Your task to perform on an android device: turn pop-ups on in chrome Image 0: 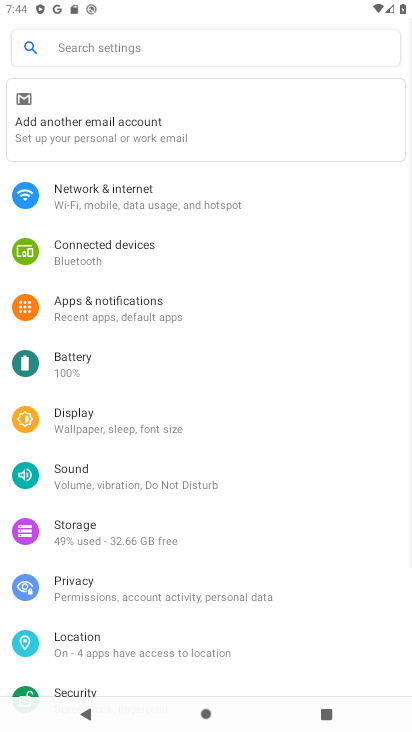
Step 0: press home button
Your task to perform on an android device: turn pop-ups on in chrome Image 1: 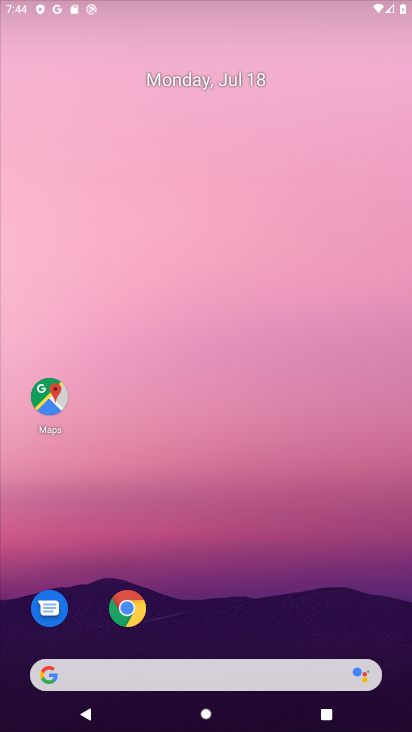
Step 1: drag from (223, 642) to (256, 213)
Your task to perform on an android device: turn pop-ups on in chrome Image 2: 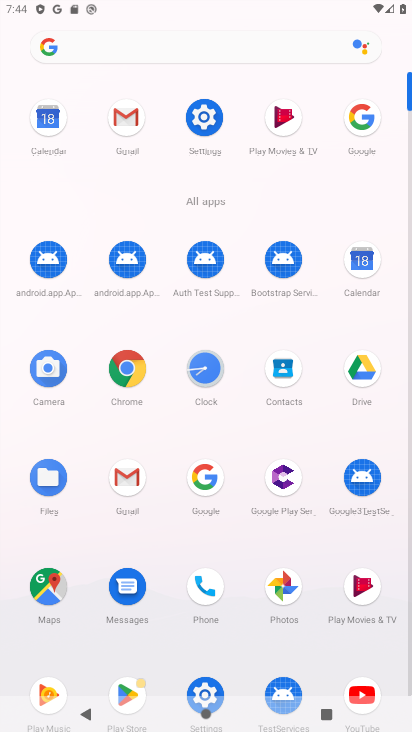
Step 2: click (124, 367)
Your task to perform on an android device: turn pop-ups on in chrome Image 3: 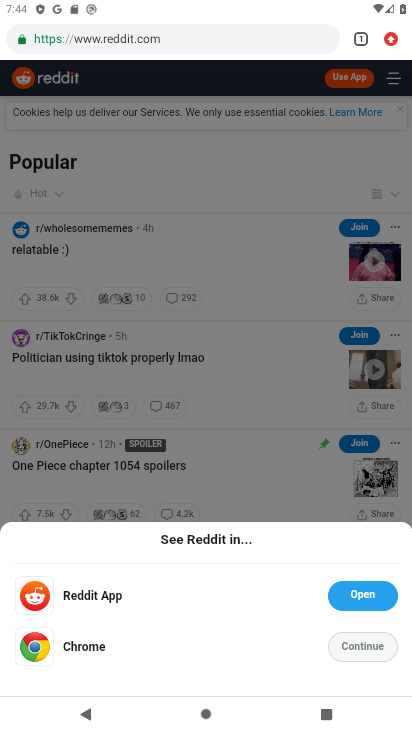
Step 3: click (391, 39)
Your task to perform on an android device: turn pop-ups on in chrome Image 4: 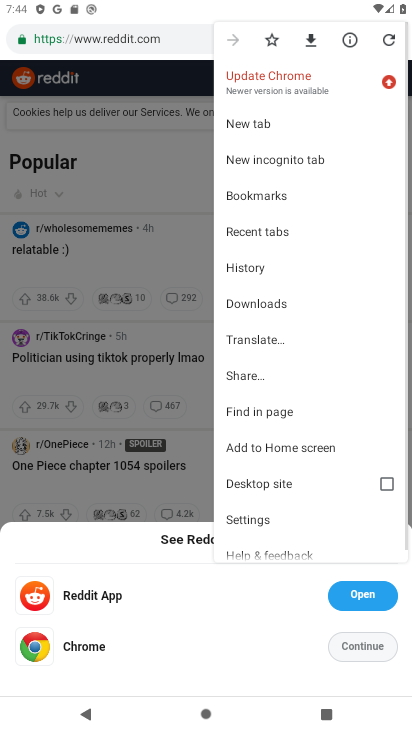
Step 4: click (251, 529)
Your task to perform on an android device: turn pop-ups on in chrome Image 5: 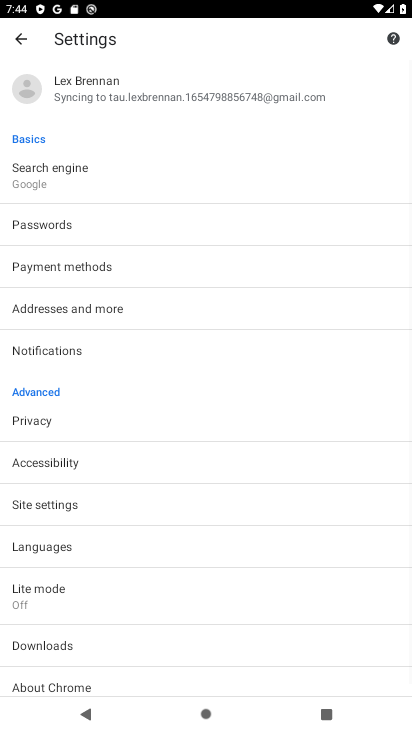
Step 5: click (72, 500)
Your task to perform on an android device: turn pop-ups on in chrome Image 6: 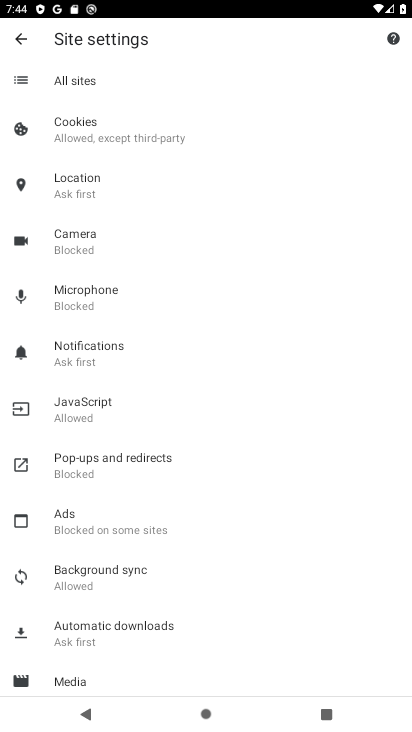
Step 6: click (95, 463)
Your task to perform on an android device: turn pop-ups on in chrome Image 7: 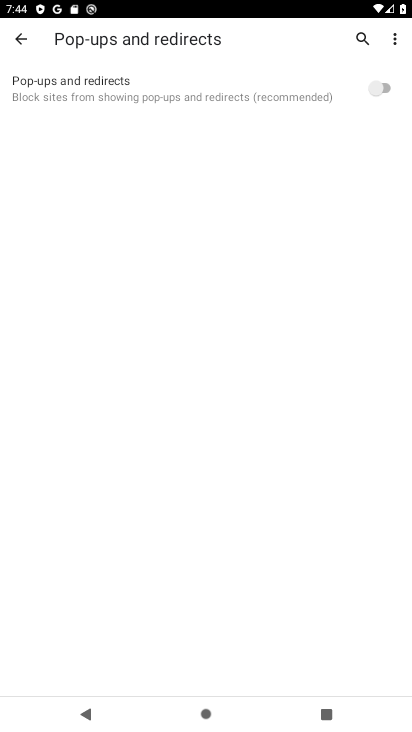
Step 7: click (382, 85)
Your task to perform on an android device: turn pop-ups on in chrome Image 8: 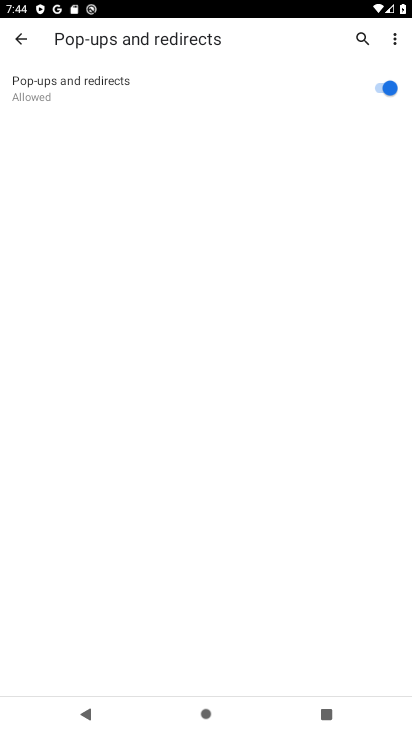
Step 8: task complete